Your task to perform on an android device: Clear all items from cart on costco. Image 0: 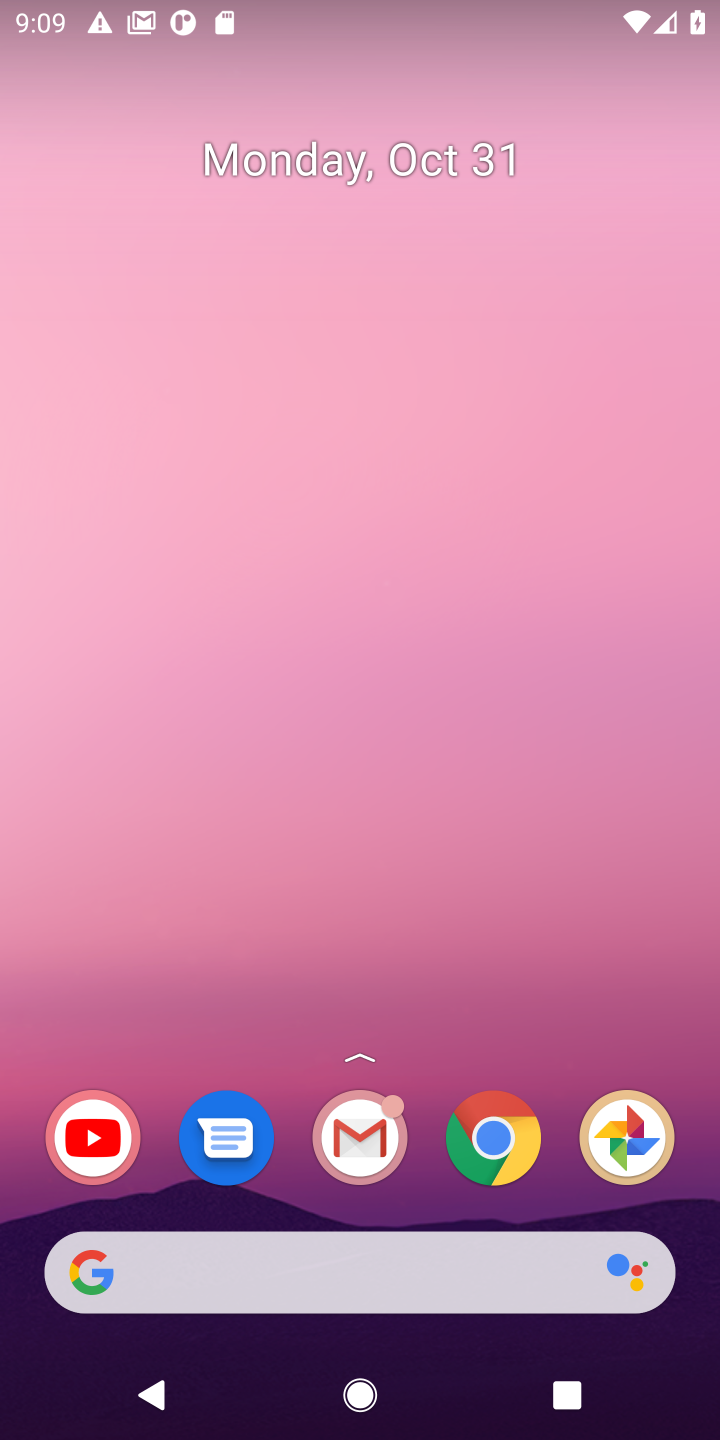
Step 0: drag from (474, 1289) to (453, 74)
Your task to perform on an android device: Clear all items from cart on costco. Image 1: 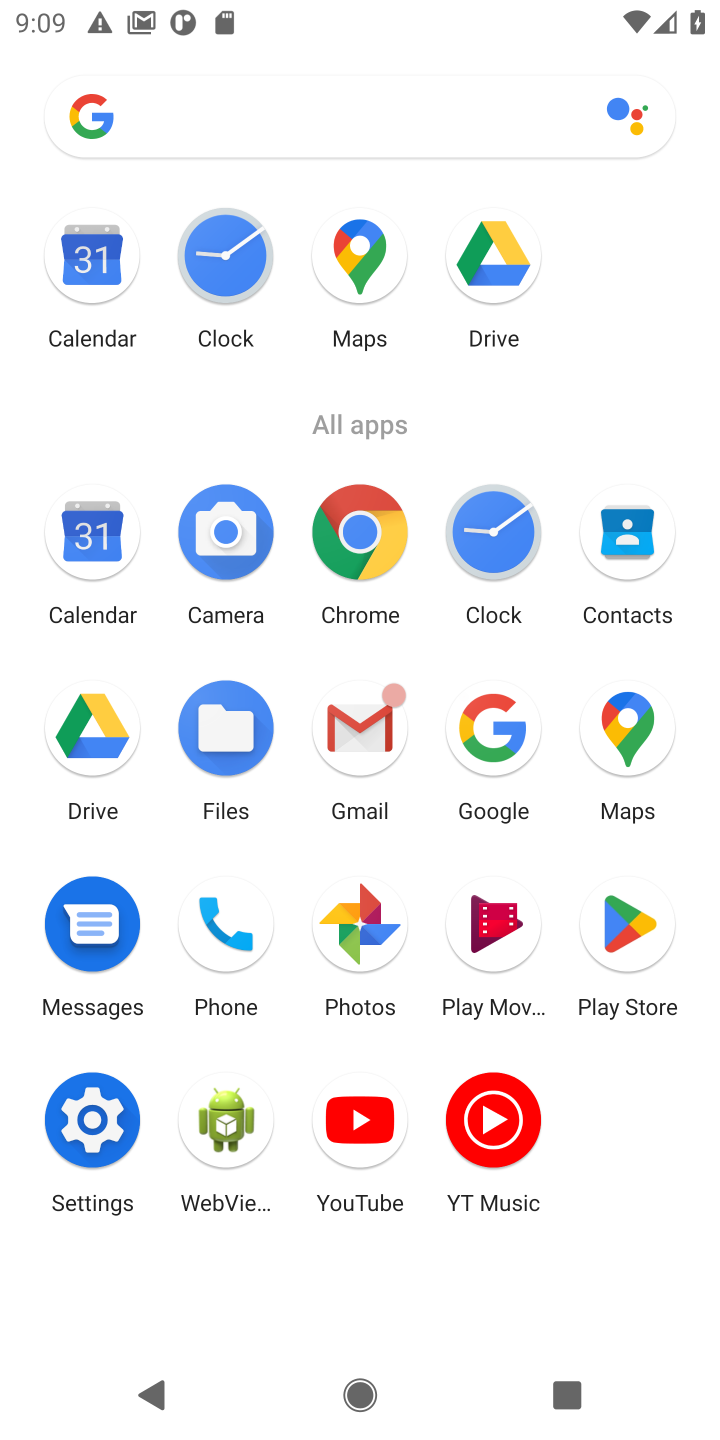
Step 1: click (365, 529)
Your task to perform on an android device: Clear all items from cart on costco. Image 2: 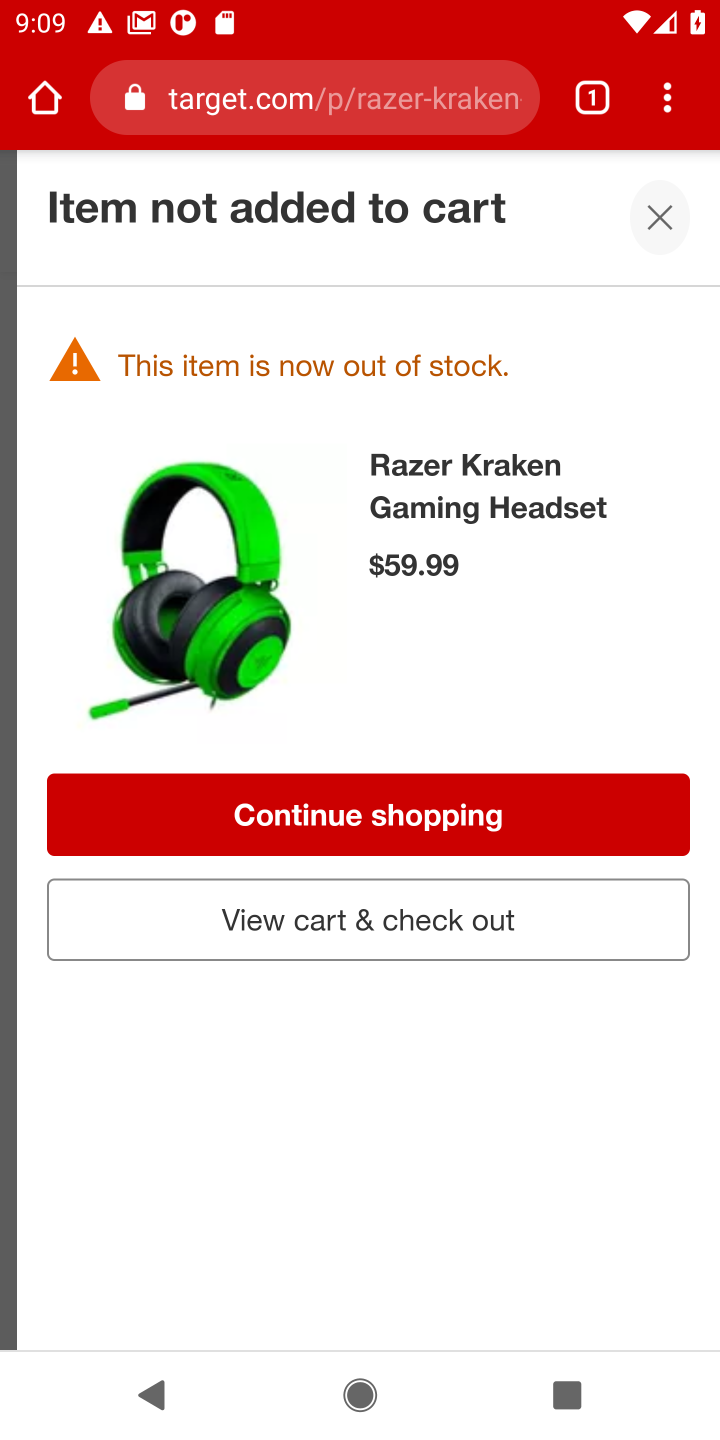
Step 2: click (339, 98)
Your task to perform on an android device: Clear all items from cart on costco. Image 3: 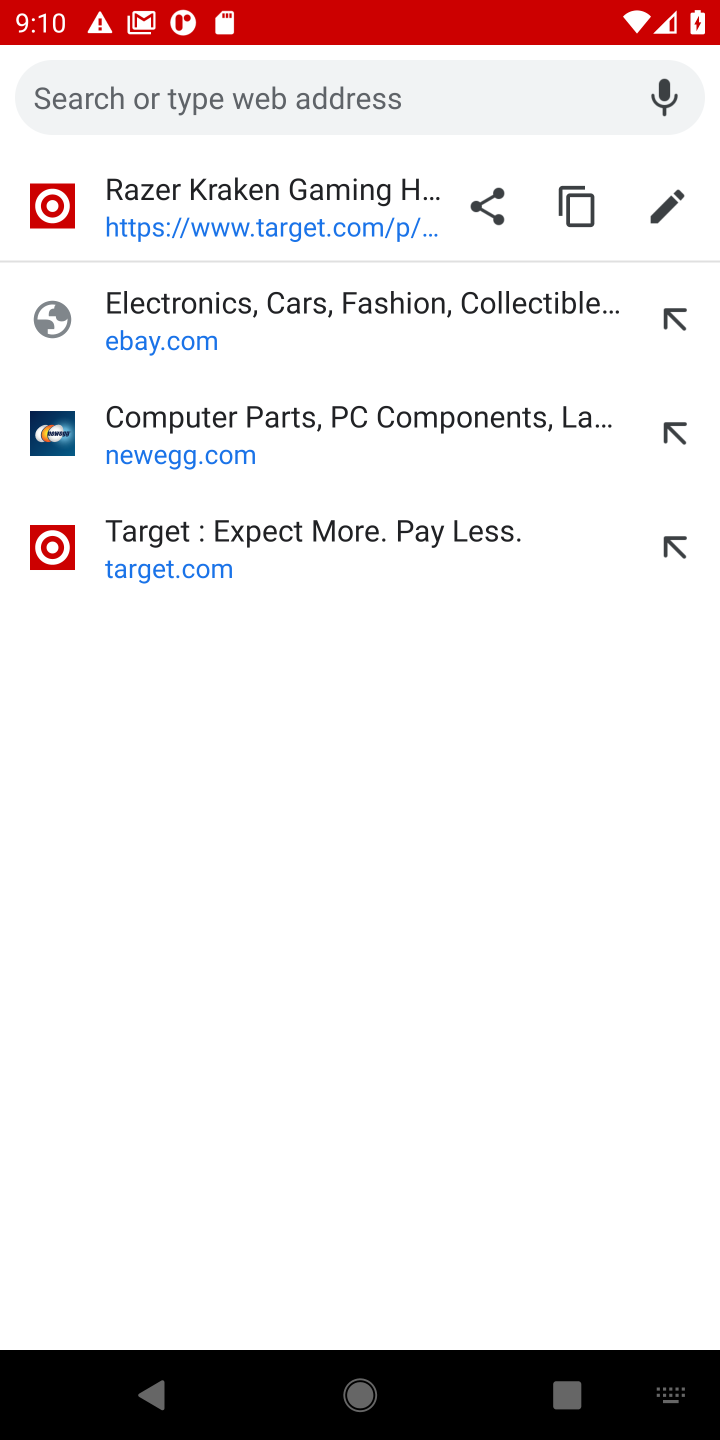
Step 3: type "costco"
Your task to perform on an android device: Clear all items from cart on costco. Image 4: 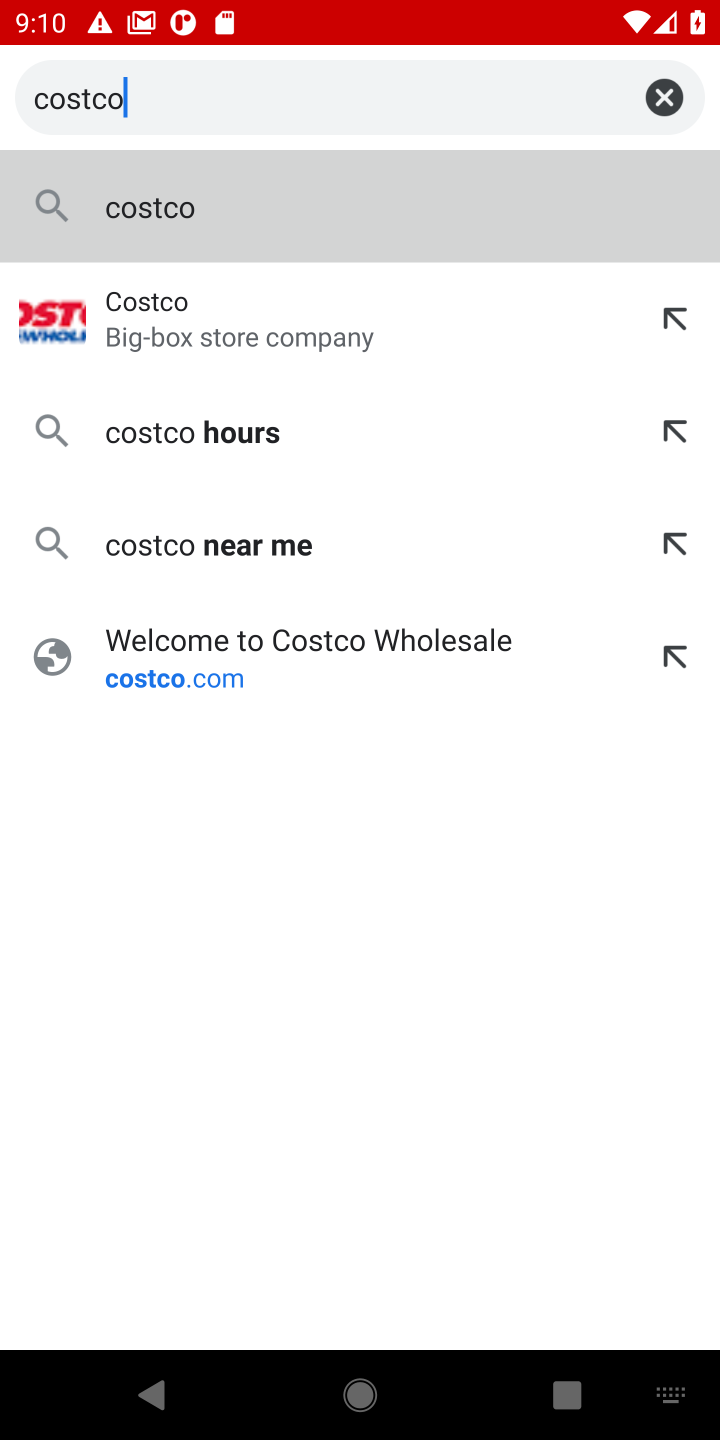
Step 4: click (173, 212)
Your task to perform on an android device: Clear all items from cart on costco. Image 5: 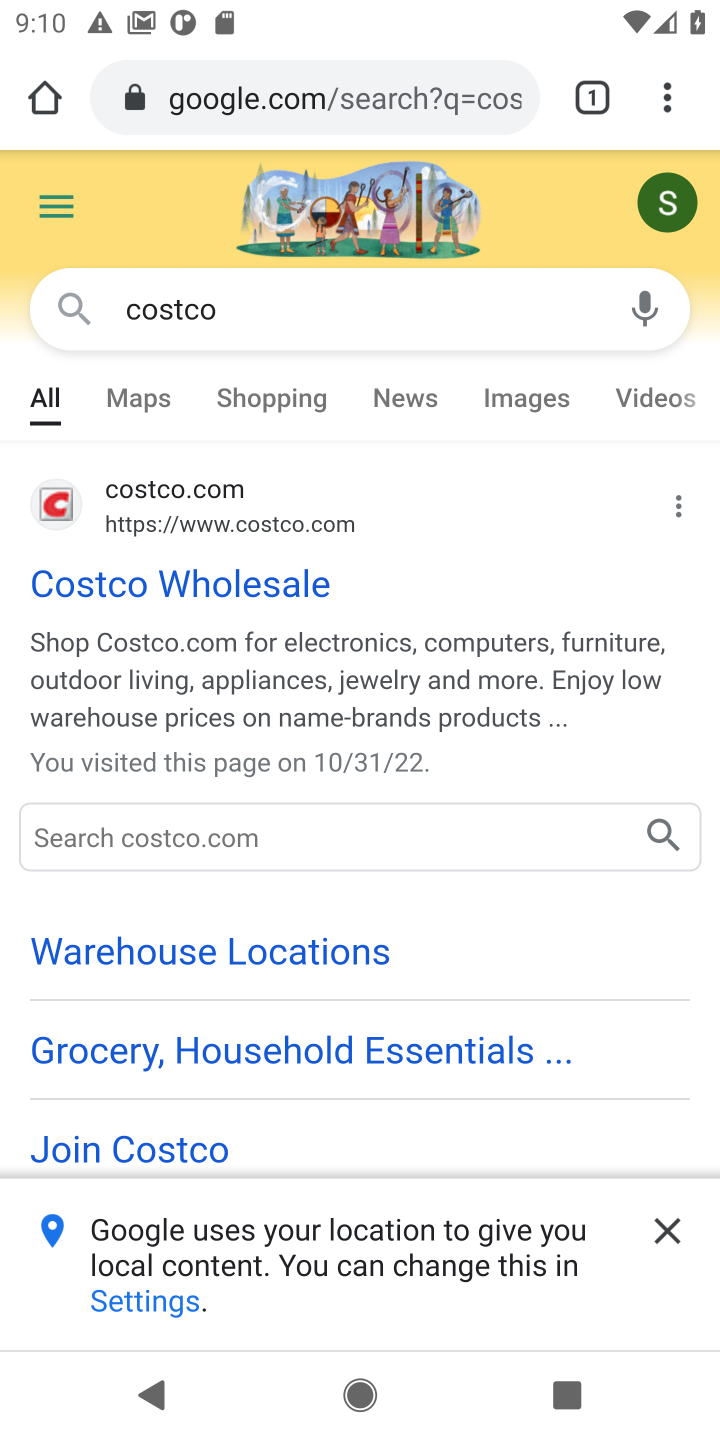
Step 5: click (84, 577)
Your task to perform on an android device: Clear all items from cart on costco. Image 6: 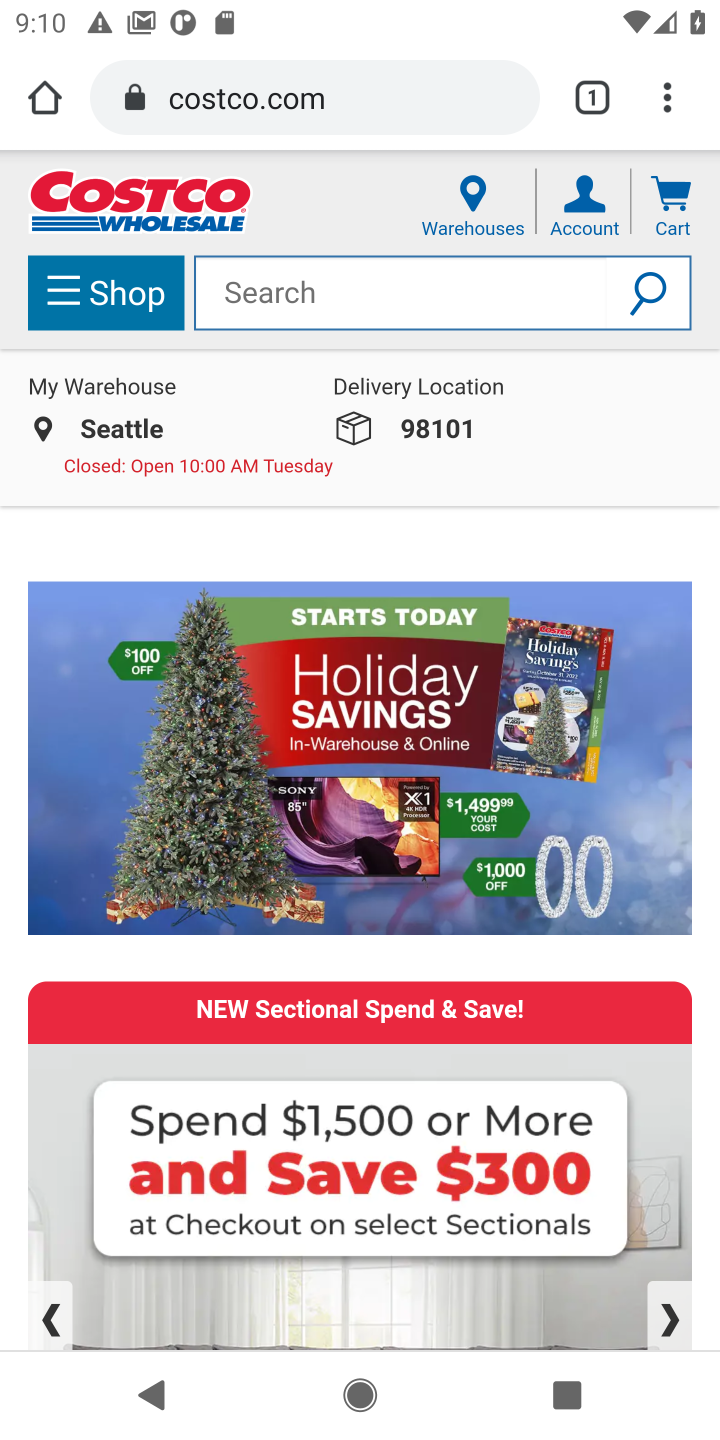
Step 6: click (272, 288)
Your task to perform on an android device: Clear all items from cart on costco. Image 7: 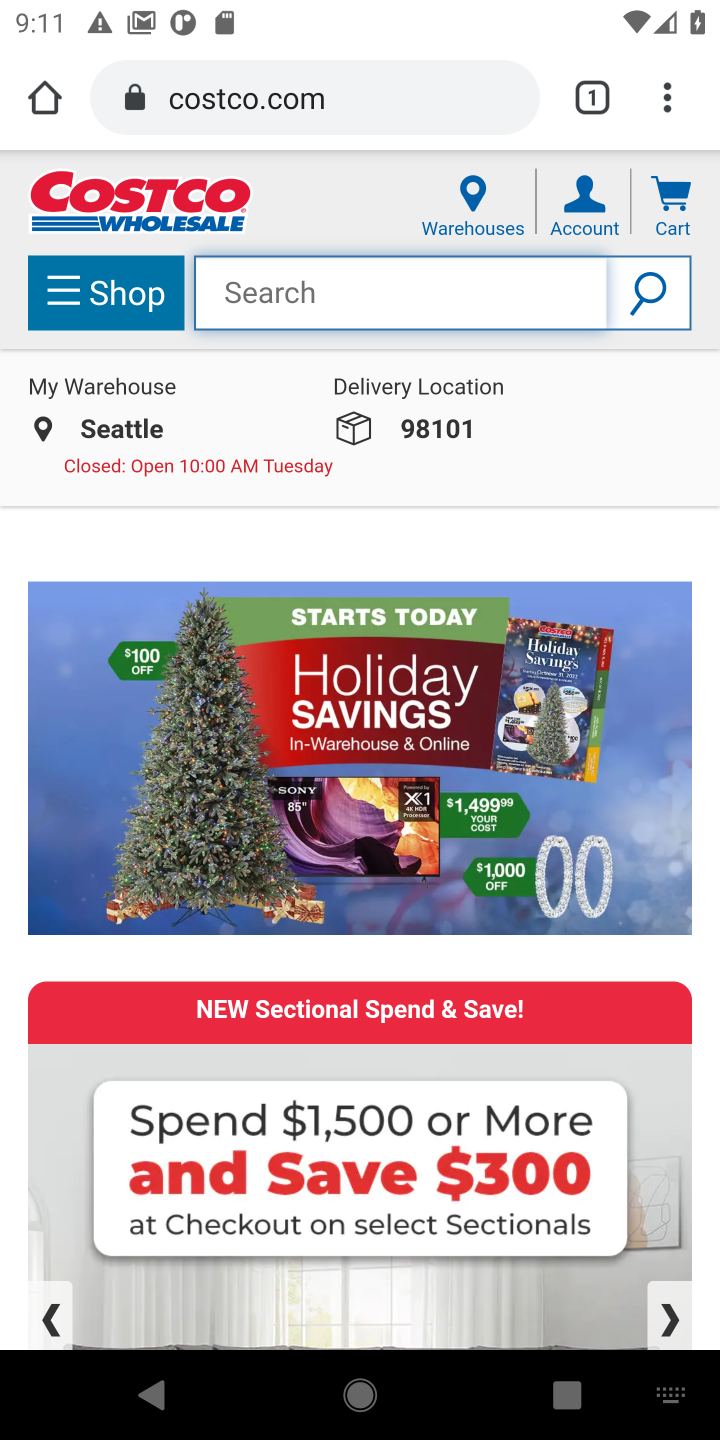
Step 7: click (675, 181)
Your task to perform on an android device: Clear all items from cart on costco. Image 8: 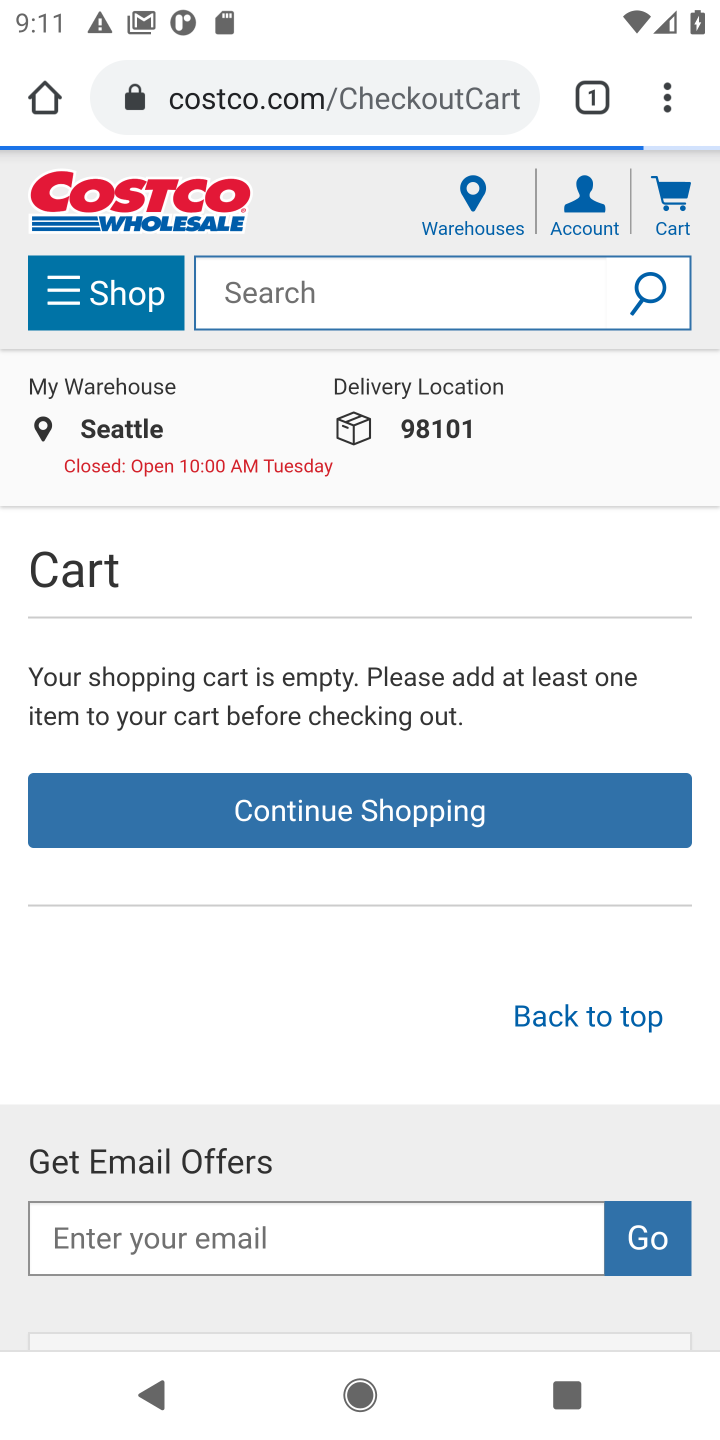
Step 8: task complete